Your task to perform on an android device: Open the Play Movies app and select the watchlist tab. Image 0: 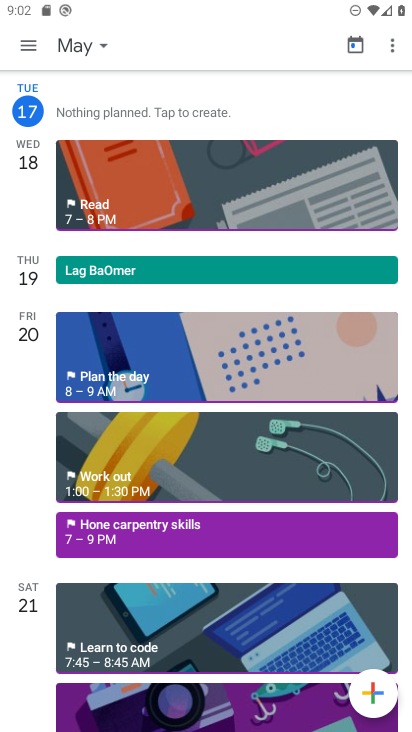
Step 0: press home button
Your task to perform on an android device: Open the Play Movies app and select the watchlist tab. Image 1: 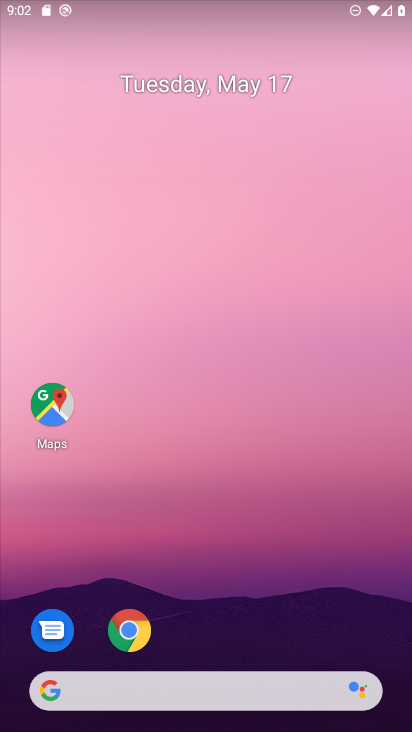
Step 1: drag from (341, 615) to (350, 218)
Your task to perform on an android device: Open the Play Movies app and select the watchlist tab. Image 2: 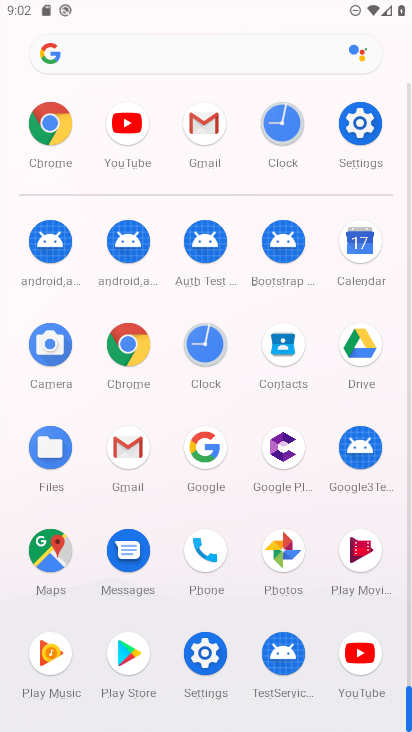
Step 2: click (366, 568)
Your task to perform on an android device: Open the Play Movies app and select the watchlist tab. Image 3: 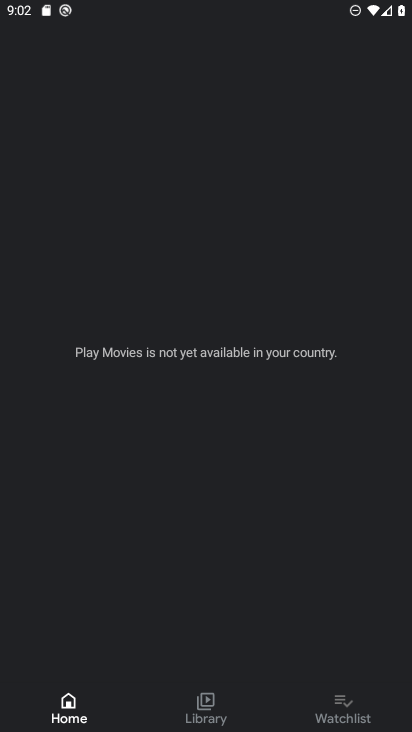
Step 3: click (346, 717)
Your task to perform on an android device: Open the Play Movies app and select the watchlist tab. Image 4: 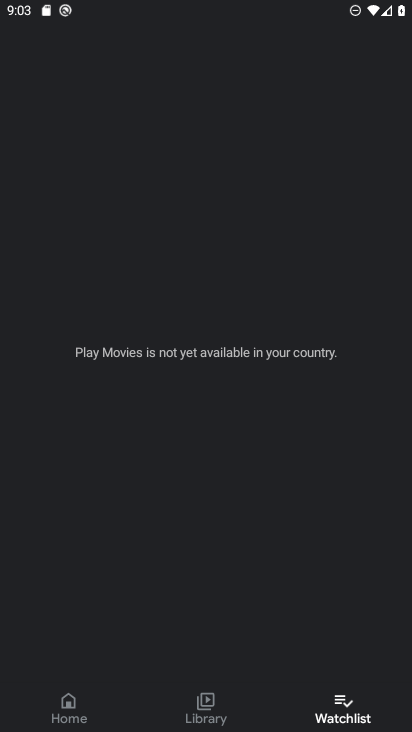
Step 4: task complete